Your task to perform on an android device: toggle improve location accuracy Image 0: 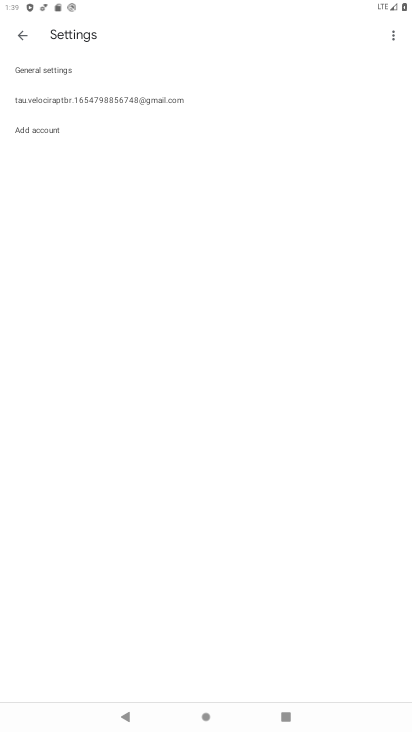
Step 0: press home button
Your task to perform on an android device: toggle improve location accuracy Image 1: 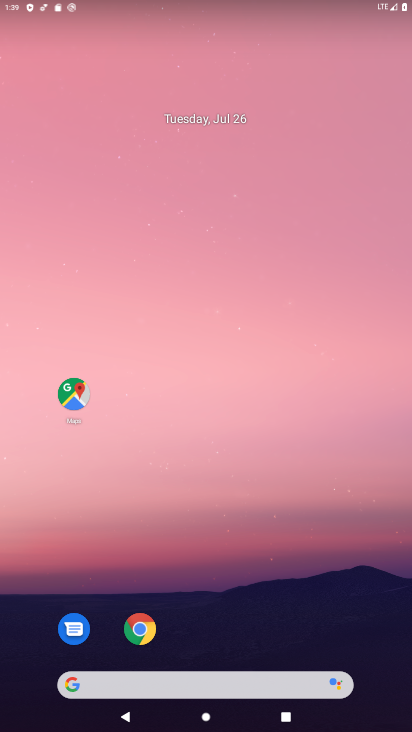
Step 1: drag from (379, 711) to (317, 64)
Your task to perform on an android device: toggle improve location accuracy Image 2: 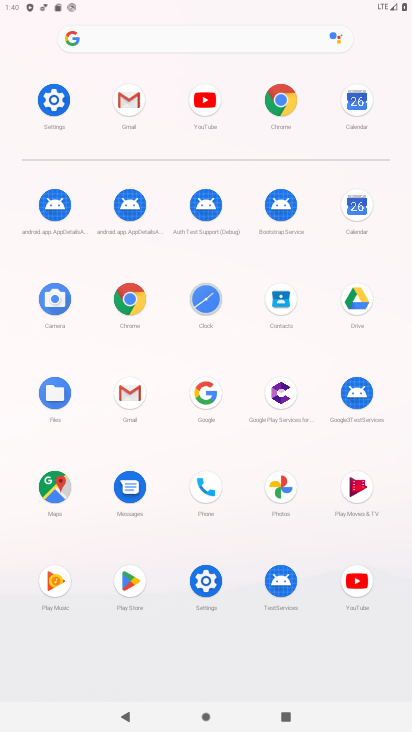
Step 2: click (38, 95)
Your task to perform on an android device: toggle improve location accuracy Image 3: 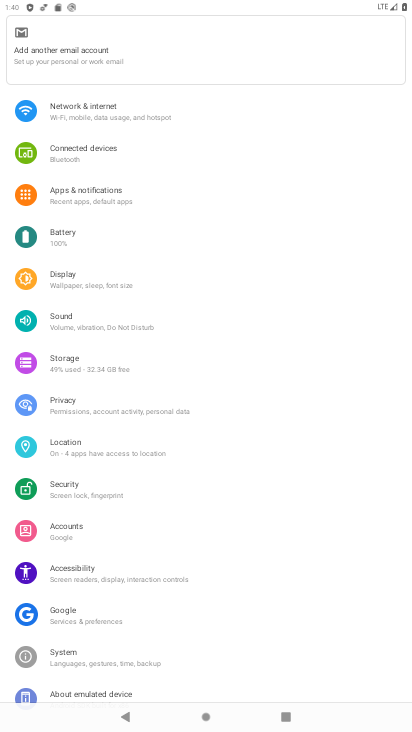
Step 3: click (75, 447)
Your task to perform on an android device: toggle improve location accuracy Image 4: 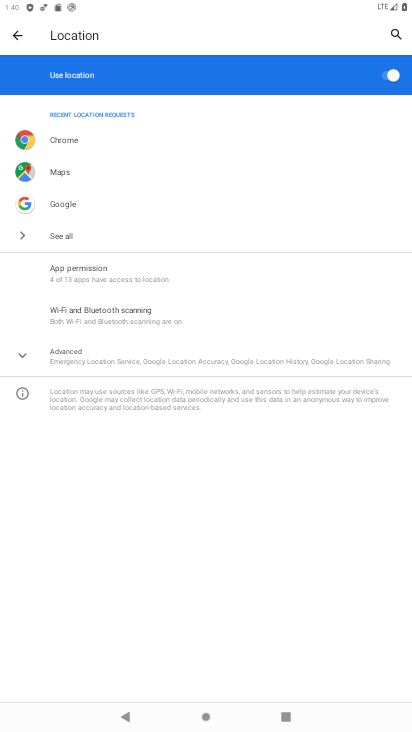
Step 4: click (24, 353)
Your task to perform on an android device: toggle improve location accuracy Image 5: 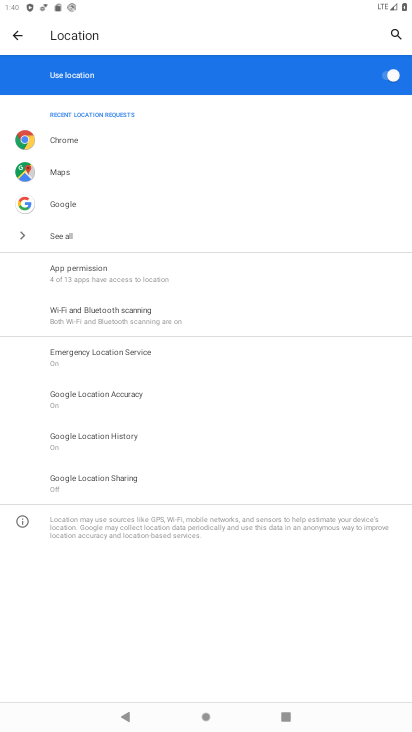
Step 5: click (109, 394)
Your task to perform on an android device: toggle improve location accuracy Image 6: 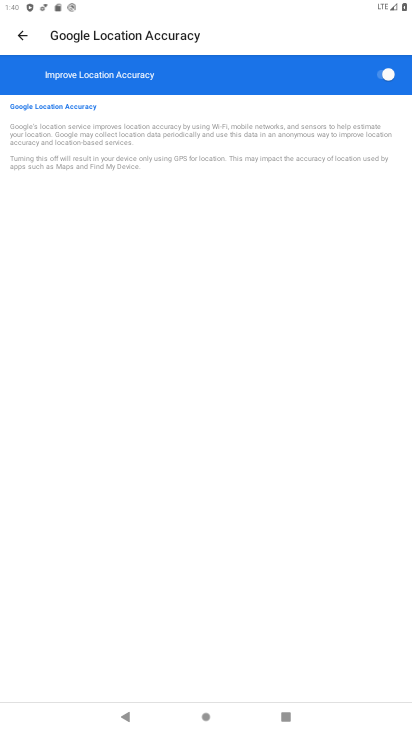
Step 6: click (382, 75)
Your task to perform on an android device: toggle improve location accuracy Image 7: 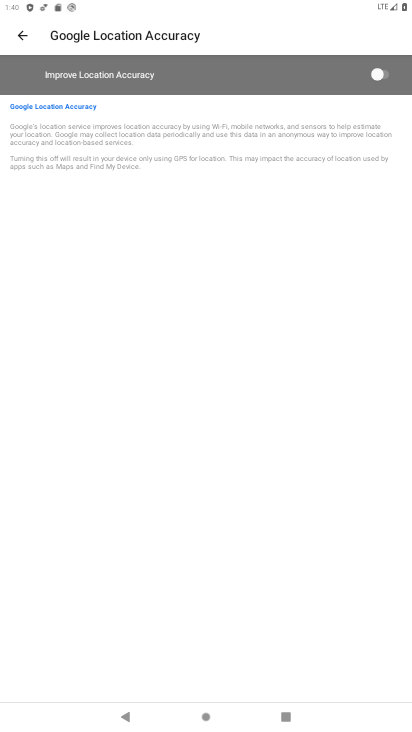
Step 7: task complete